Your task to perform on an android device: Open Reddit.com Image 0: 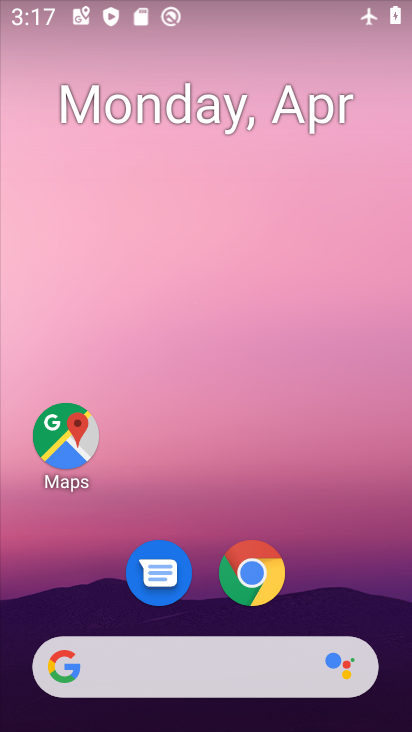
Step 0: drag from (353, 596) to (362, 120)
Your task to perform on an android device: Open Reddit.com Image 1: 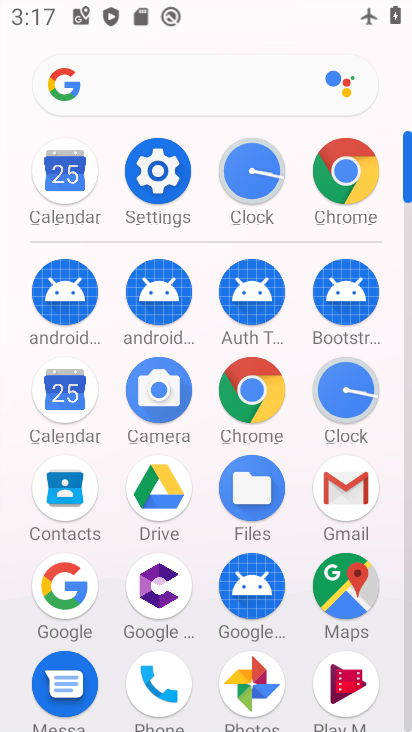
Step 1: click (360, 188)
Your task to perform on an android device: Open Reddit.com Image 2: 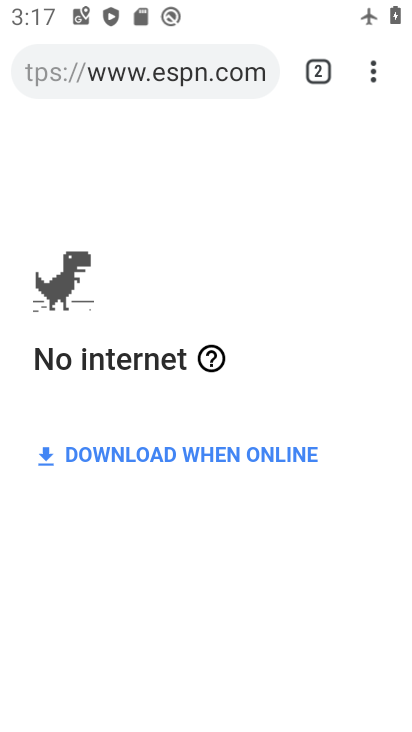
Step 2: click (216, 75)
Your task to perform on an android device: Open Reddit.com Image 3: 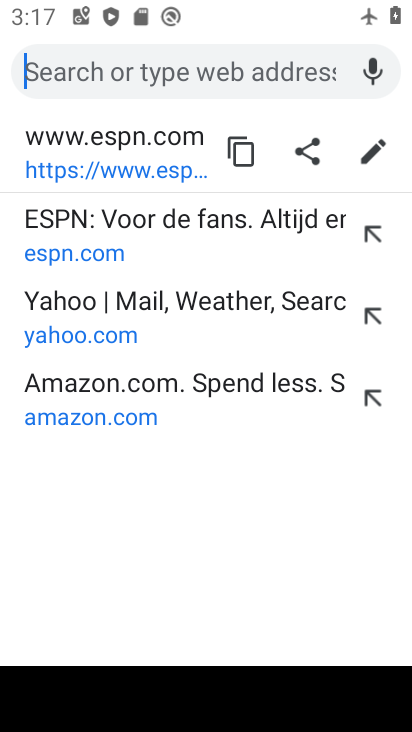
Step 3: type "reddit com"
Your task to perform on an android device: Open Reddit.com Image 4: 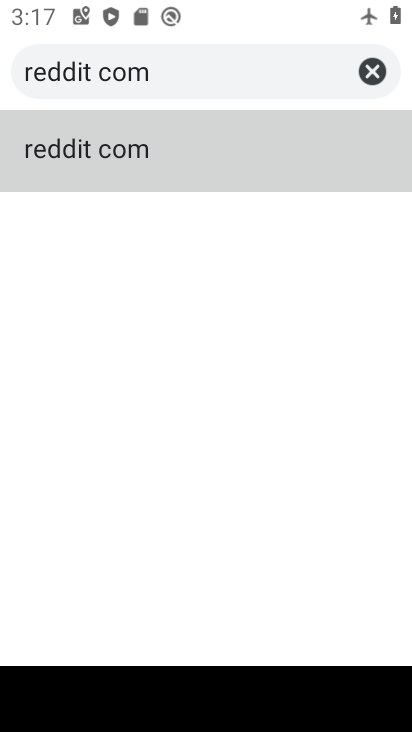
Step 4: click (230, 152)
Your task to perform on an android device: Open Reddit.com Image 5: 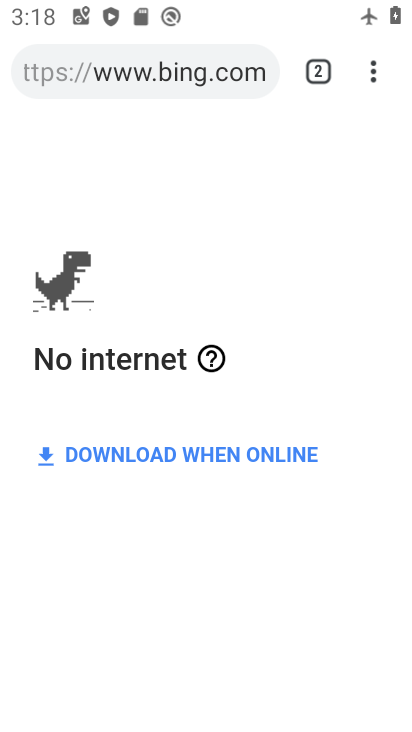
Step 5: task complete